Your task to perform on an android device: Go to wifi settings Image 0: 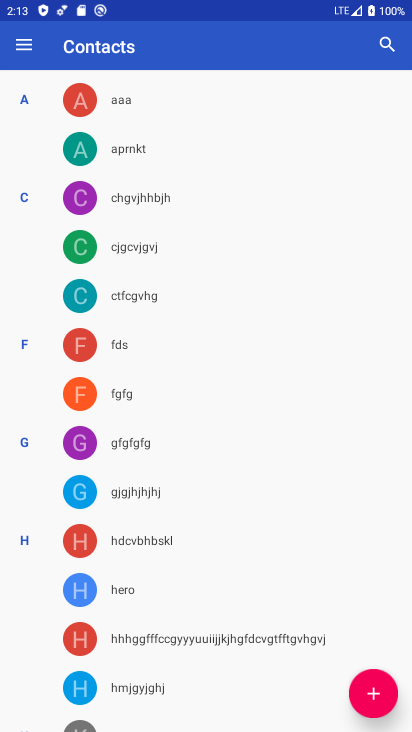
Step 0: press back button
Your task to perform on an android device: Go to wifi settings Image 1: 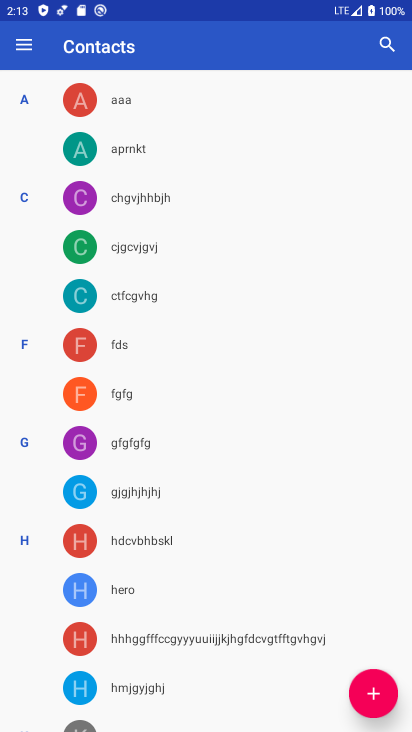
Step 1: press back button
Your task to perform on an android device: Go to wifi settings Image 2: 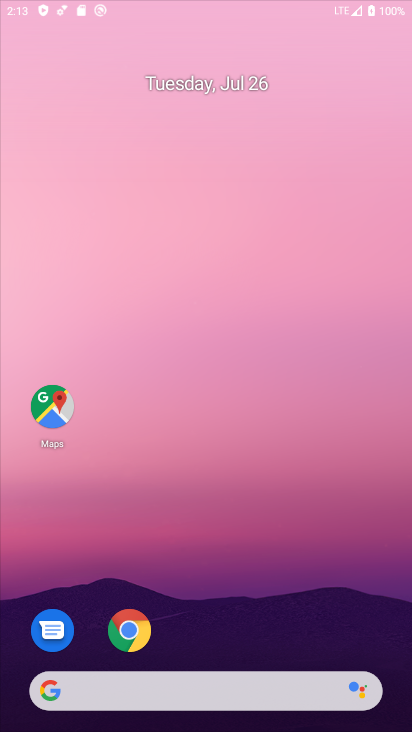
Step 2: press back button
Your task to perform on an android device: Go to wifi settings Image 3: 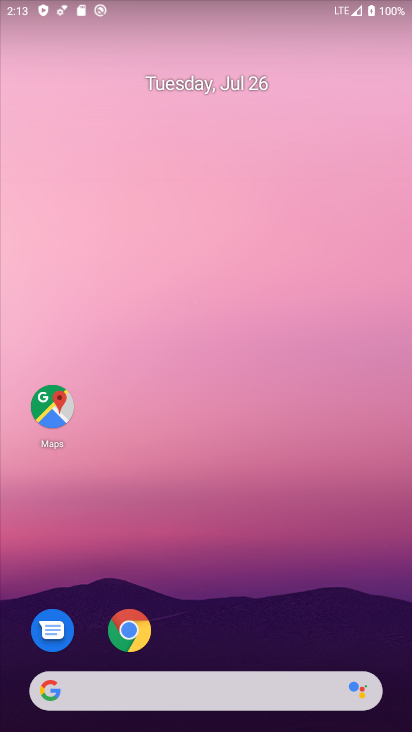
Step 3: drag from (222, 555) to (207, 522)
Your task to perform on an android device: Go to wifi settings Image 4: 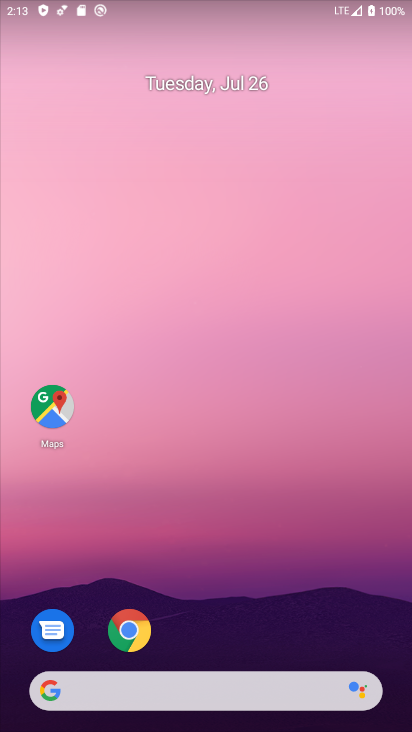
Step 4: drag from (163, 572) to (70, 4)
Your task to perform on an android device: Go to wifi settings Image 5: 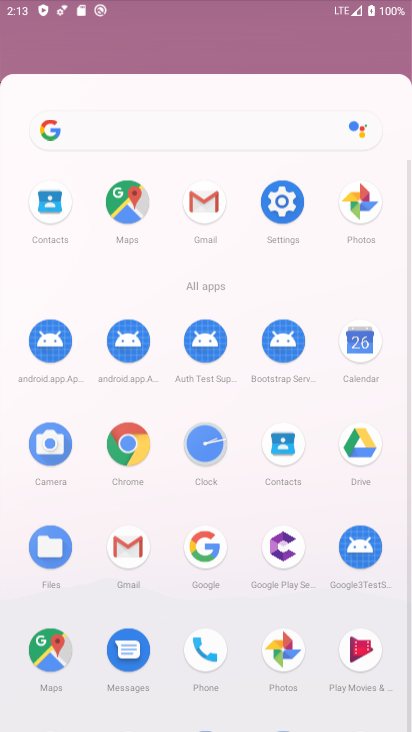
Step 5: drag from (163, 524) to (116, 86)
Your task to perform on an android device: Go to wifi settings Image 6: 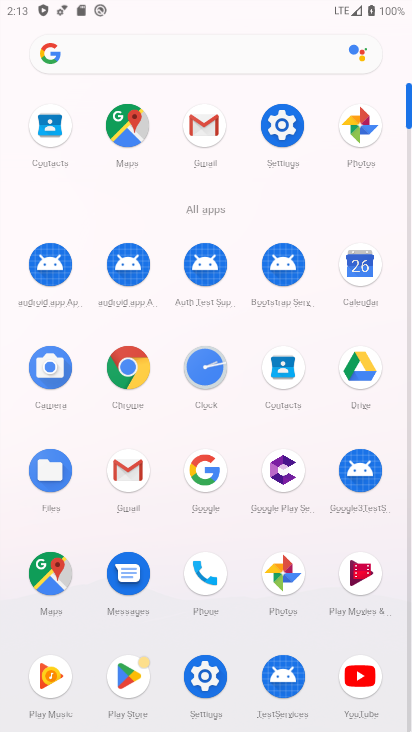
Step 6: click (293, 118)
Your task to perform on an android device: Go to wifi settings Image 7: 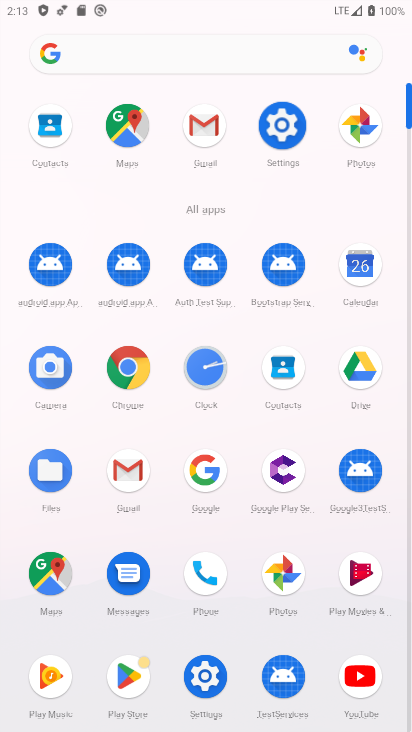
Step 7: click (292, 119)
Your task to perform on an android device: Go to wifi settings Image 8: 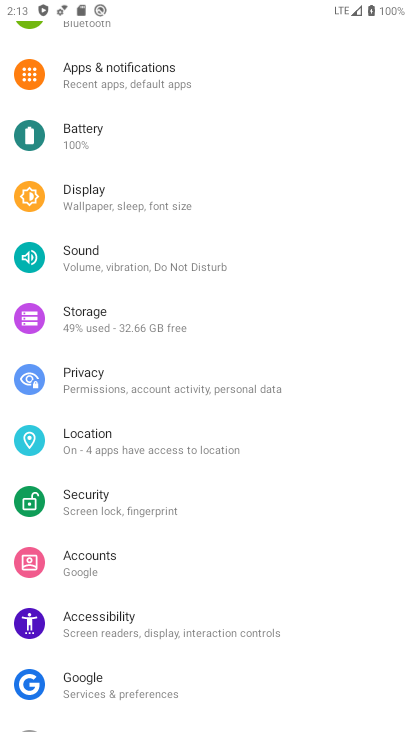
Step 8: click (292, 113)
Your task to perform on an android device: Go to wifi settings Image 9: 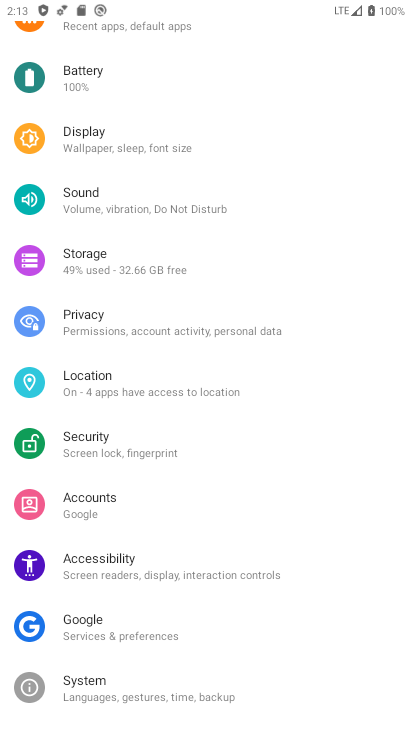
Step 9: click (294, 113)
Your task to perform on an android device: Go to wifi settings Image 10: 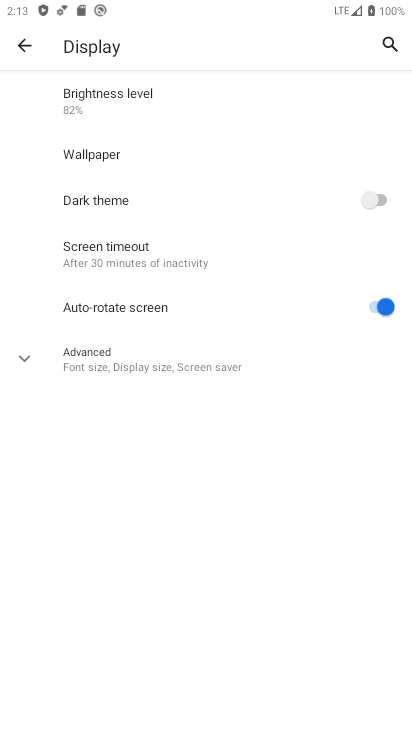
Step 10: click (21, 48)
Your task to perform on an android device: Go to wifi settings Image 11: 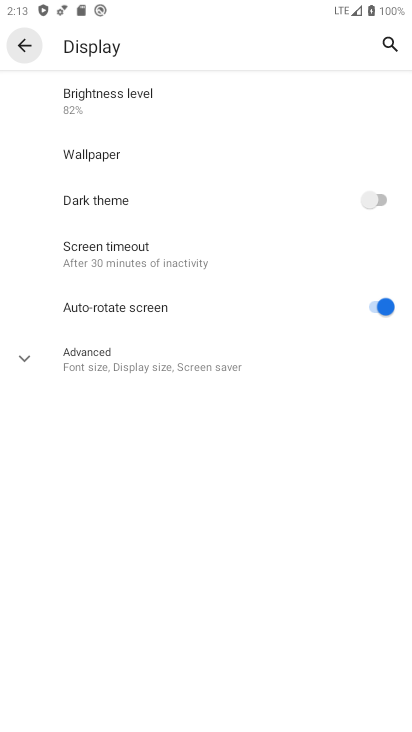
Step 11: click (22, 42)
Your task to perform on an android device: Go to wifi settings Image 12: 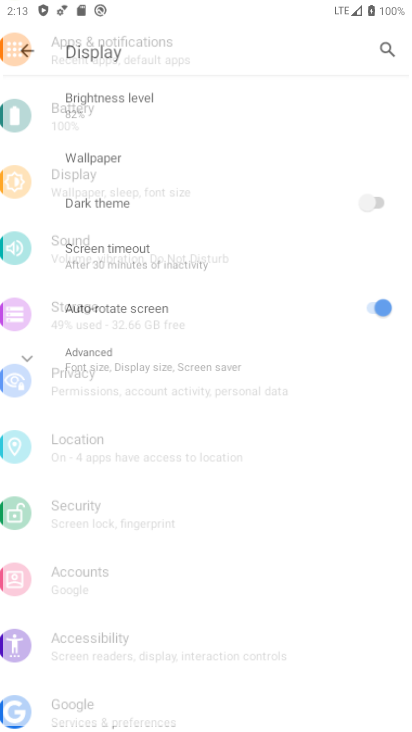
Step 12: click (28, 38)
Your task to perform on an android device: Go to wifi settings Image 13: 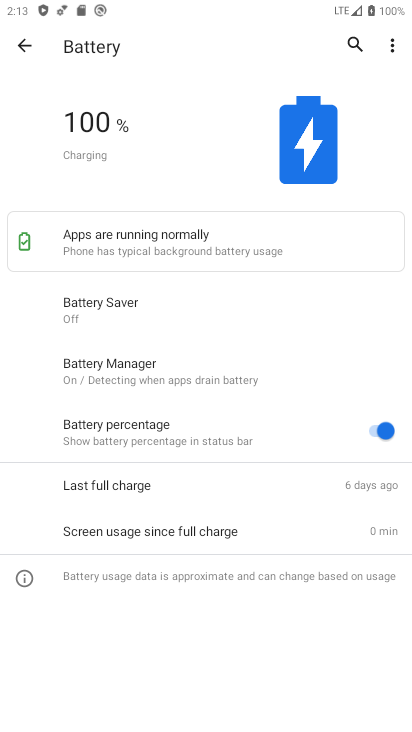
Step 13: drag from (142, 102) to (148, 461)
Your task to perform on an android device: Go to wifi settings Image 14: 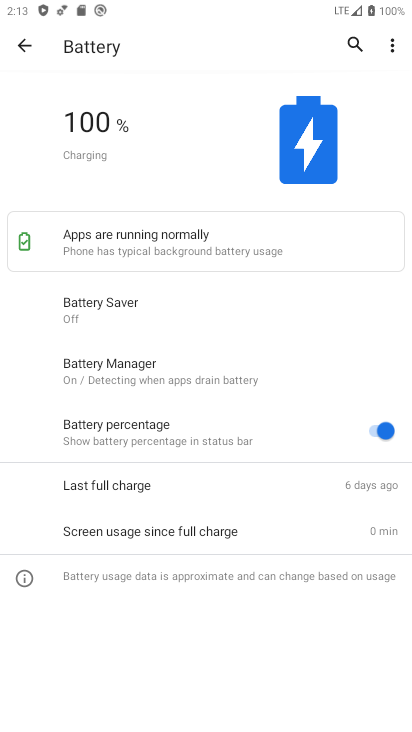
Step 14: click (28, 53)
Your task to perform on an android device: Go to wifi settings Image 15: 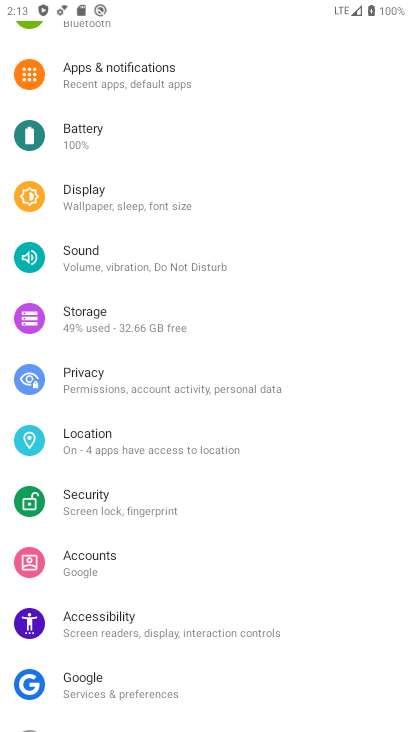
Step 15: drag from (110, 198) to (193, 489)
Your task to perform on an android device: Go to wifi settings Image 16: 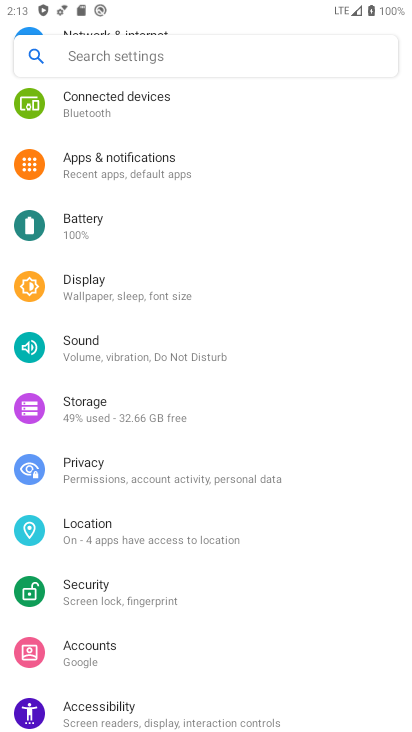
Step 16: drag from (110, 294) to (141, 487)
Your task to perform on an android device: Go to wifi settings Image 17: 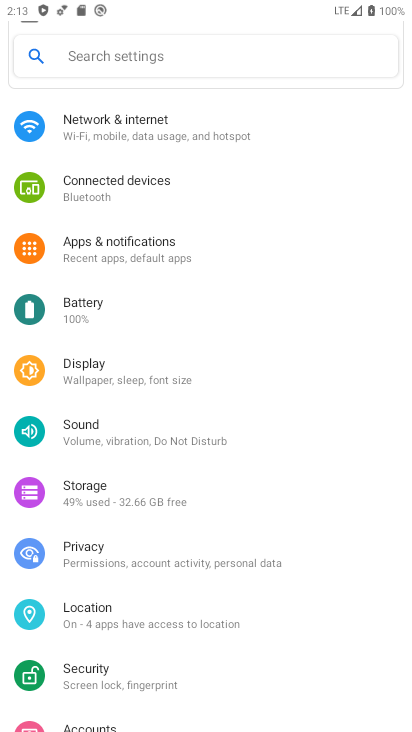
Step 17: click (95, 128)
Your task to perform on an android device: Go to wifi settings Image 18: 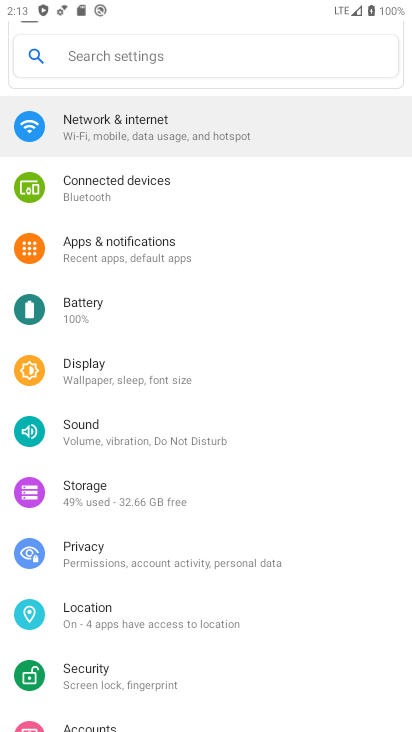
Step 18: click (103, 125)
Your task to perform on an android device: Go to wifi settings Image 19: 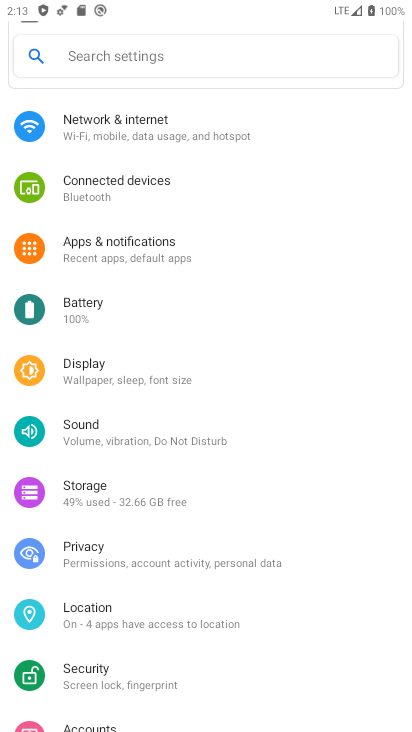
Step 19: click (102, 122)
Your task to perform on an android device: Go to wifi settings Image 20: 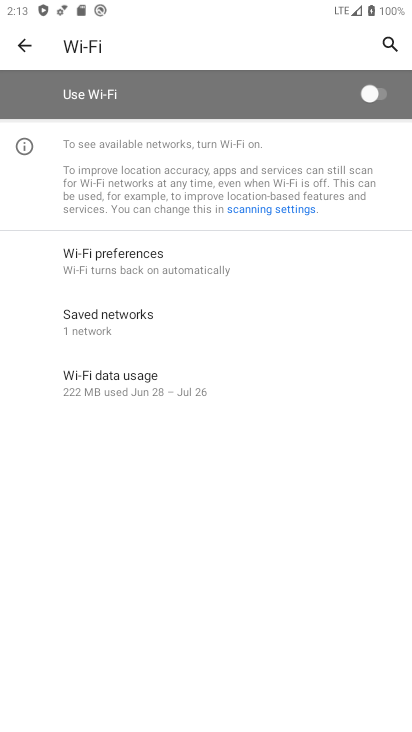
Step 20: task complete